Your task to perform on an android device: Show me the alarms in the clock app Image 0: 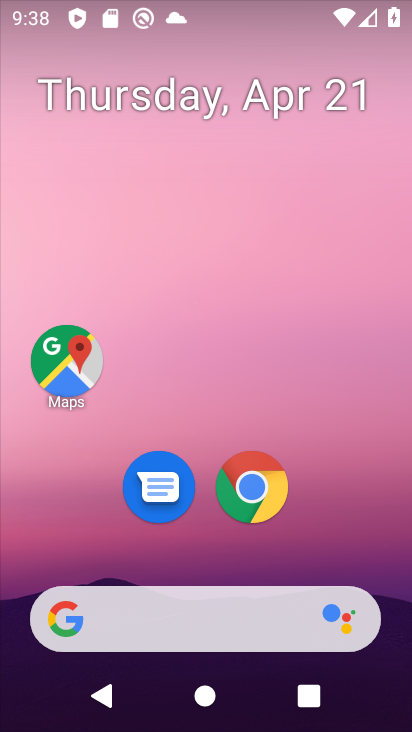
Step 0: drag from (390, 185) to (385, 139)
Your task to perform on an android device: Show me the alarms in the clock app Image 1: 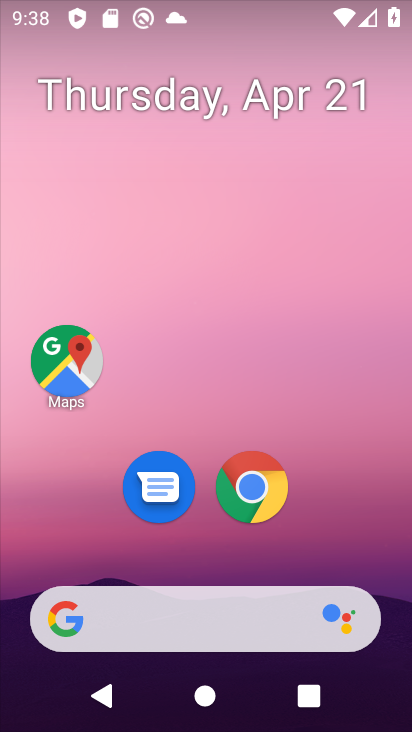
Step 1: drag from (386, 539) to (375, 279)
Your task to perform on an android device: Show me the alarms in the clock app Image 2: 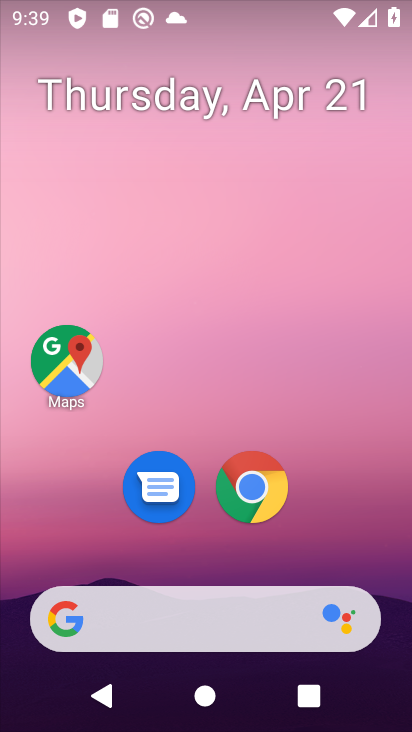
Step 2: drag from (388, 555) to (357, 176)
Your task to perform on an android device: Show me the alarms in the clock app Image 3: 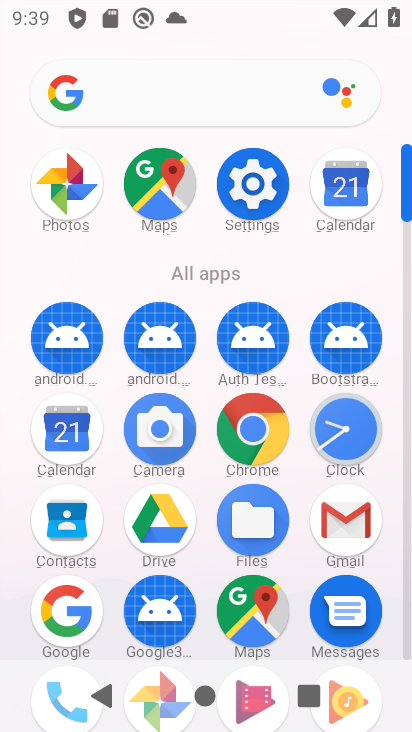
Step 3: click (341, 432)
Your task to perform on an android device: Show me the alarms in the clock app Image 4: 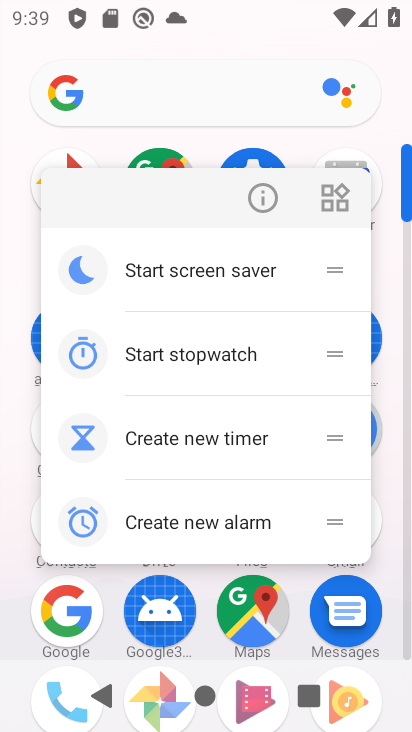
Step 4: click (368, 429)
Your task to perform on an android device: Show me the alarms in the clock app Image 5: 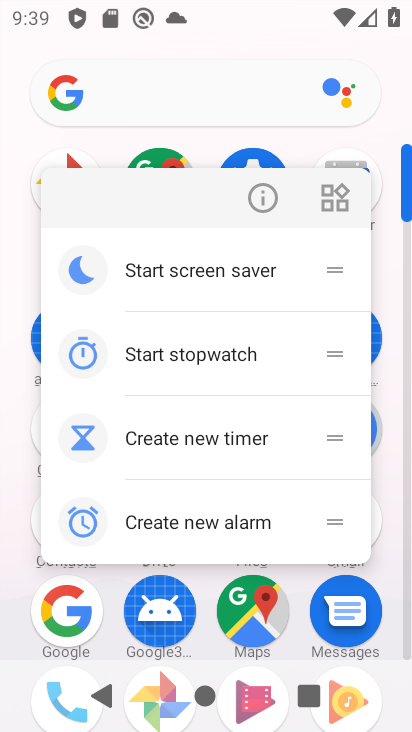
Step 5: press back button
Your task to perform on an android device: Show me the alarms in the clock app Image 6: 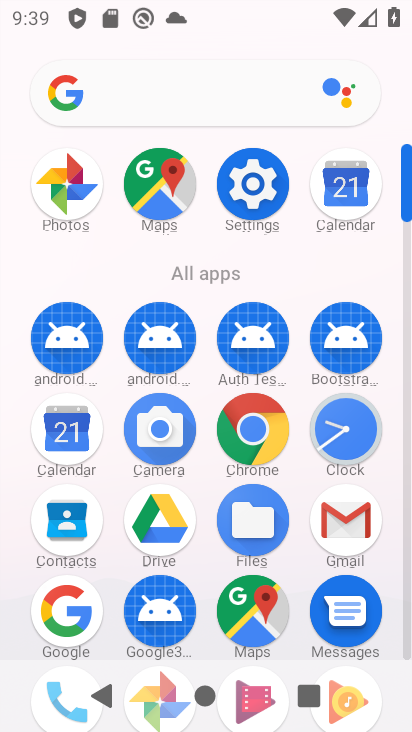
Step 6: click (343, 438)
Your task to perform on an android device: Show me the alarms in the clock app Image 7: 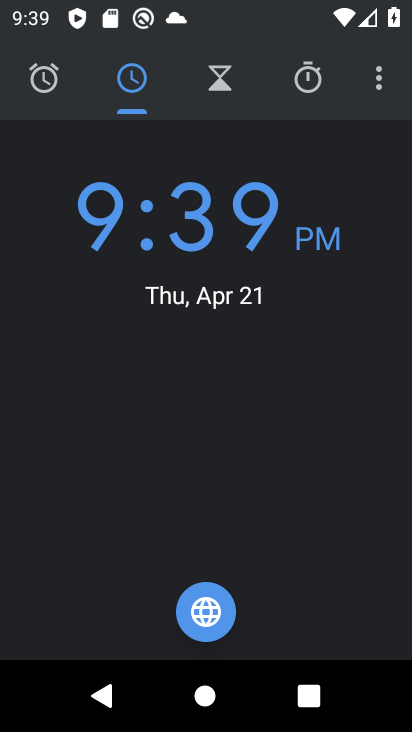
Step 7: click (376, 79)
Your task to perform on an android device: Show me the alarms in the clock app Image 8: 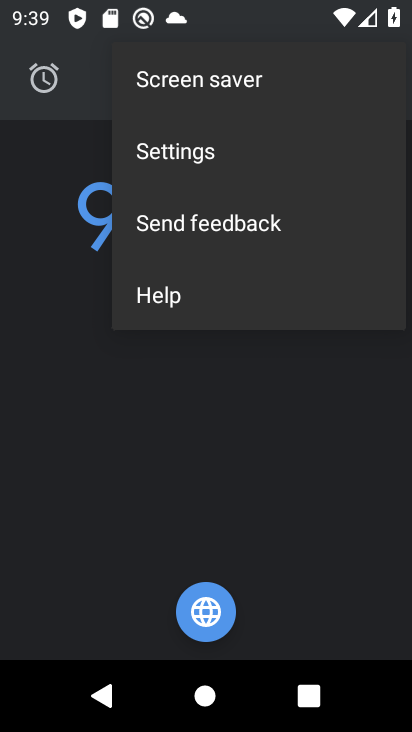
Step 8: click (183, 145)
Your task to perform on an android device: Show me the alarms in the clock app Image 9: 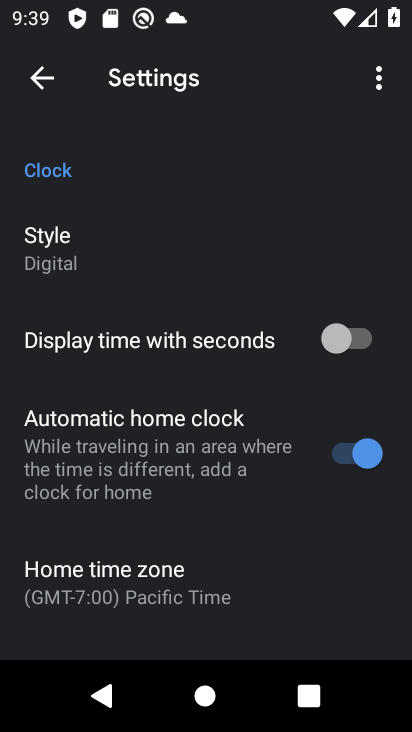
Step 9: drag from (237, 587) to (231, 312)
Your task to perform on an android device: Show me the alarms in the clock app Image 10: 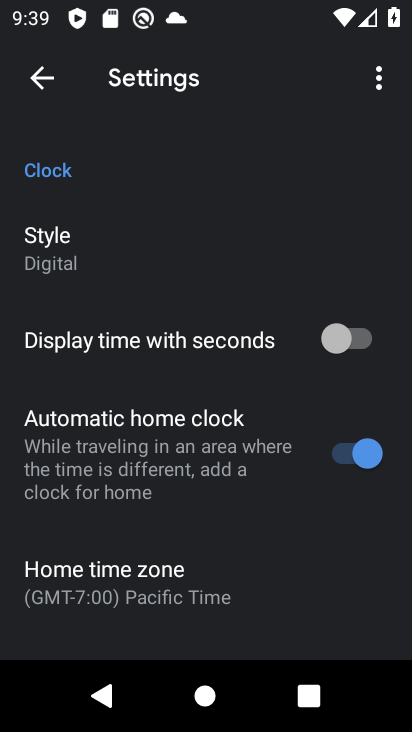
Step 10: drag from (255, 382) to (255, 319)
Your task to perform on an android device: Show me the alarms in the clock app Image 11: 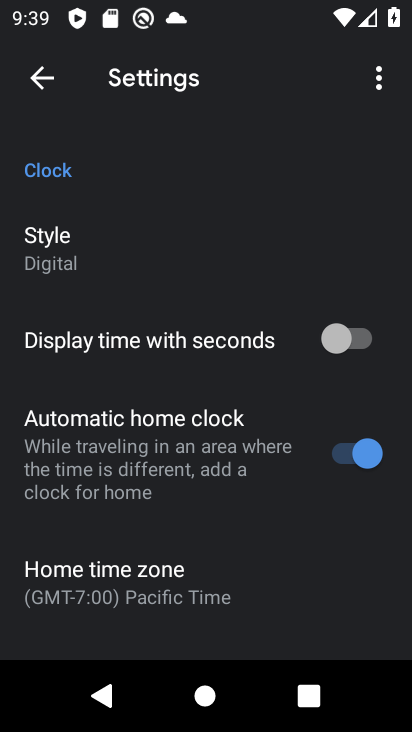
Step 11: drag from (240, 382) to (240, 321)
Your task to perform on an android device: Show me the alarms in the clock app Image 12: 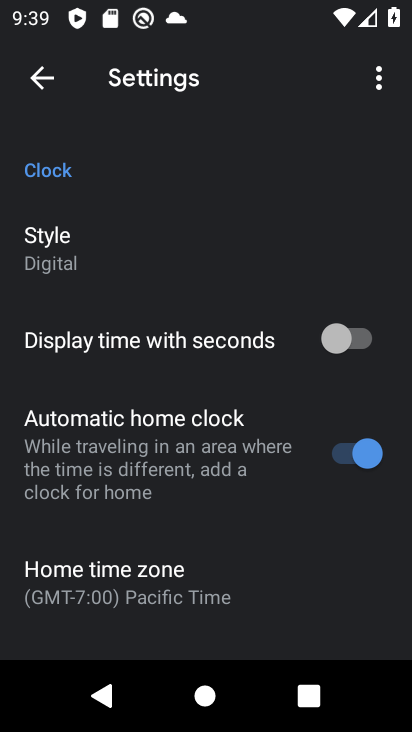
Step 12: drag from (294, 610) to (267, 232)
Your task to perform on an android device: Show me the alarms in the clock app Image 13: 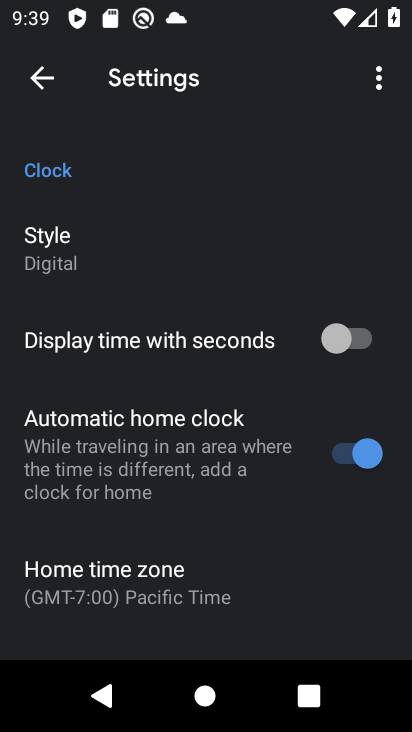
Step 13: drag from (271, 388) to (266, 280)
Your task to perform on an android device: Show me the alarms in the clock app Image 14: 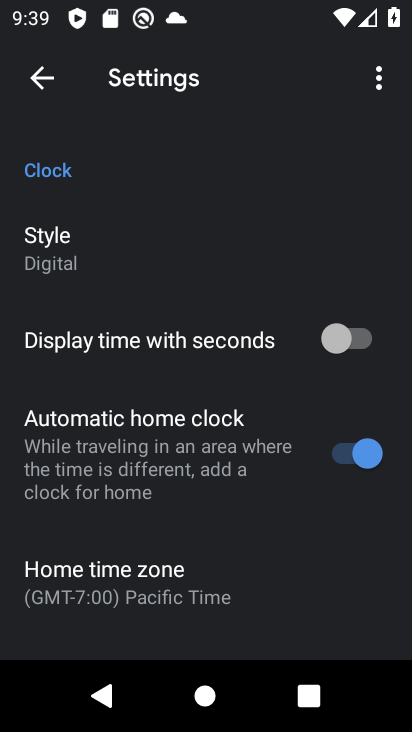
Step 14: drag from (292, 374) to (290, 199)
Your task to perform on an android device: Show me the alarms in the clock app Image 15: 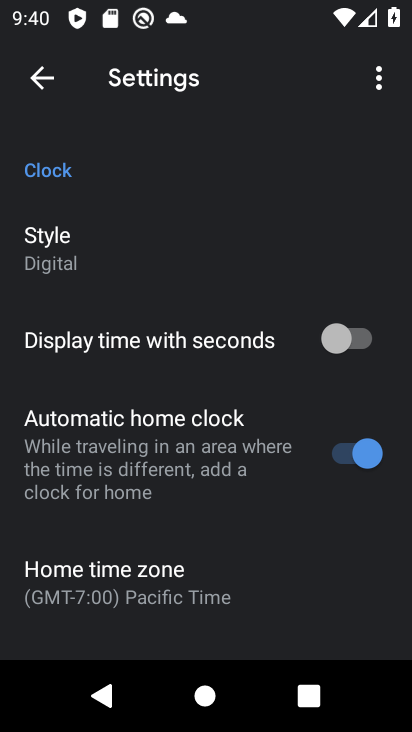
Step 15: click (235, 312)
Your task to perform on an android device: Show me the alarms in the clock app Image 16: 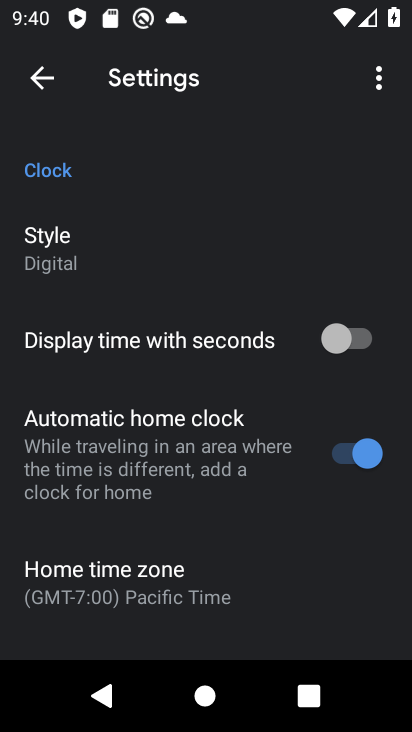
Step 16: click (37, 92)
Your task to perform on an android device: Show me the alarms in the clock app Image 17: 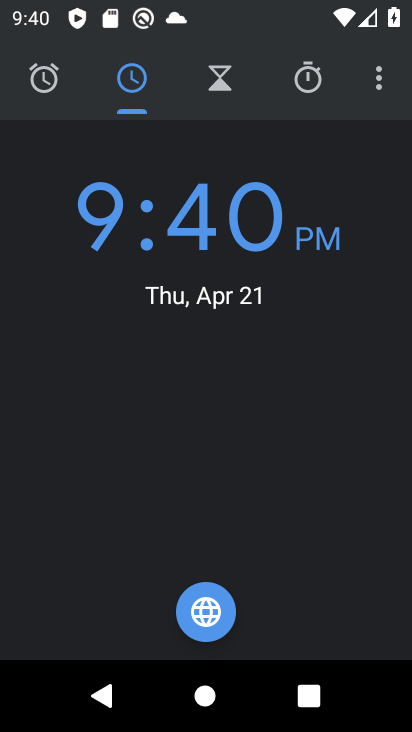
Step 17: click (45, 78)
Your task to perform on an android device: Show me the alarms in the clock app Image 18: 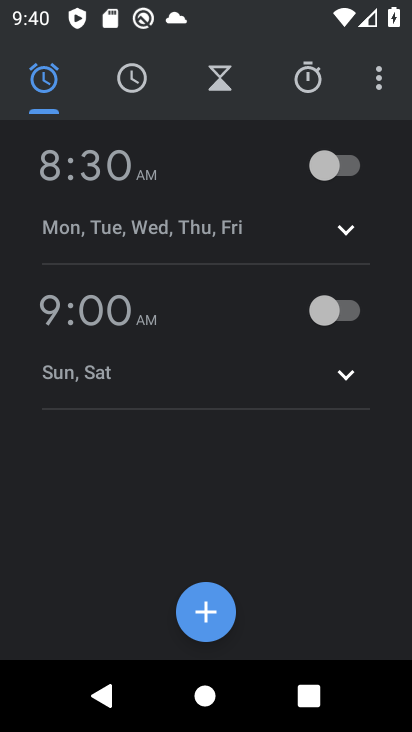
Step 18: task complete